Your task to perform on an android device: turn on sleep mode Image 0: 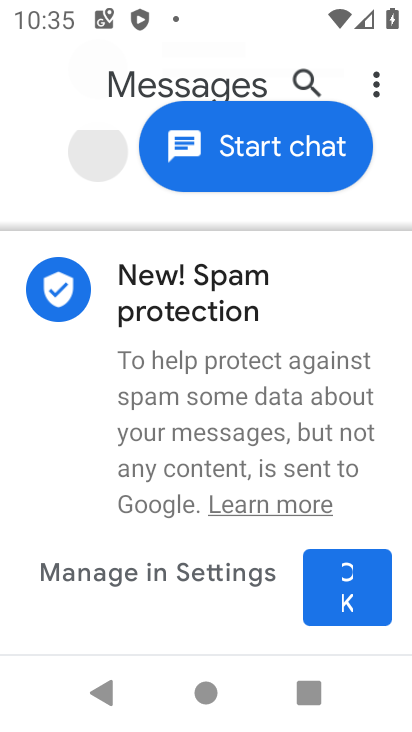
Step 0: press home button
Your task to perform on an android device: turn on sleep mode Image 1: 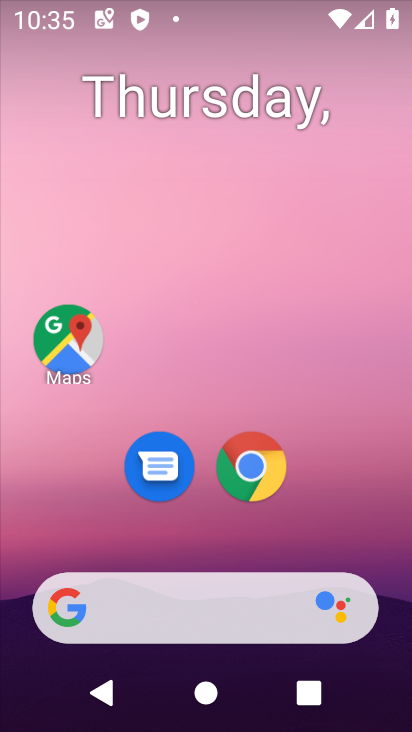
Step 1: drag from (227, 533) to (220, 189)
Your task to perform on an android device: turn on sleep mode Image 2: 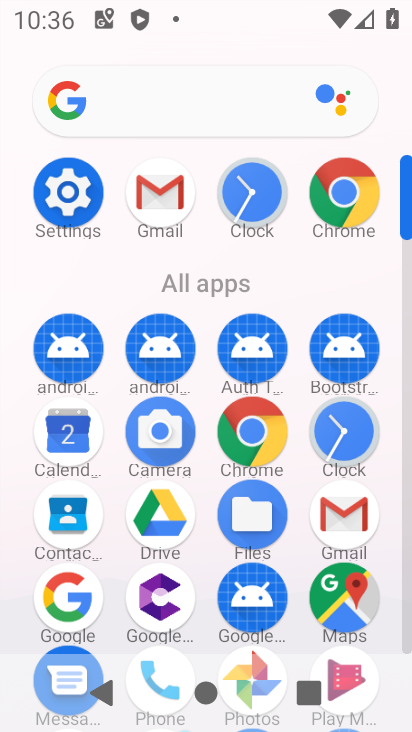
Step 2: click (83, 199)
Your task to perform on an android device: turn on sleep mode Image 3: 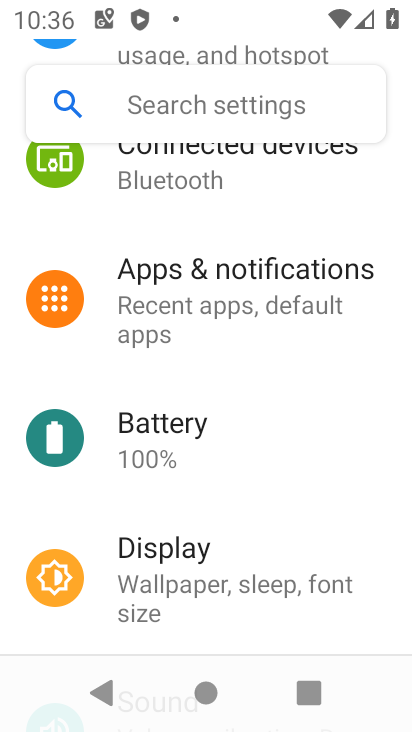
Step 3: drag from (206, 265) to (212, 176)
Your task to perform on an android device: turn on sleep mode Image 4: 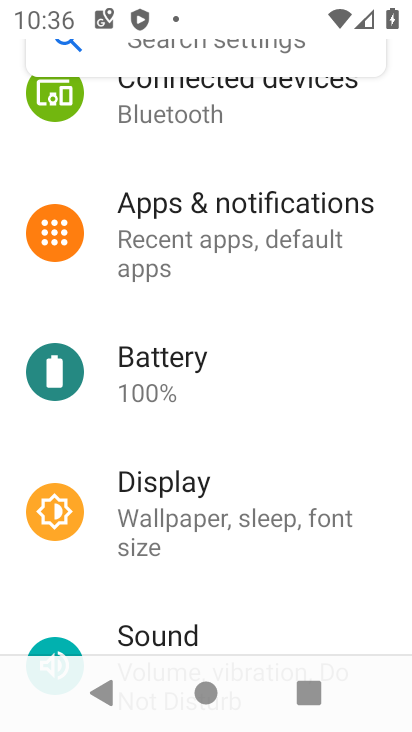
Step 4: click (219, 503)
Your task to perform on an android device: turn on sleep mode Image 5: 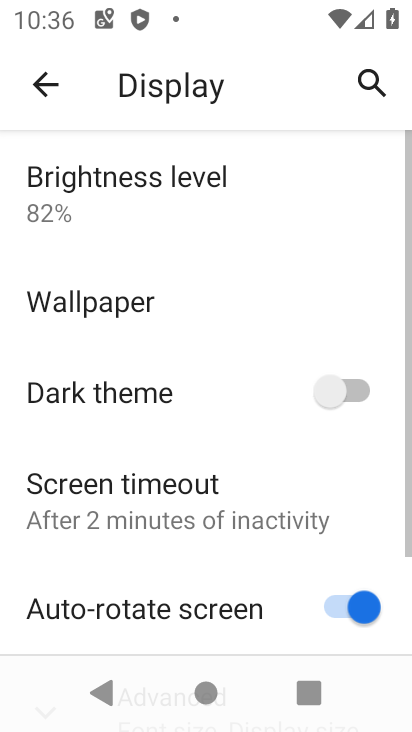
Step 5: drag from (235, 580) to (239, 287)
Your task to perform on an android device: turn on sleep mode Image 6: 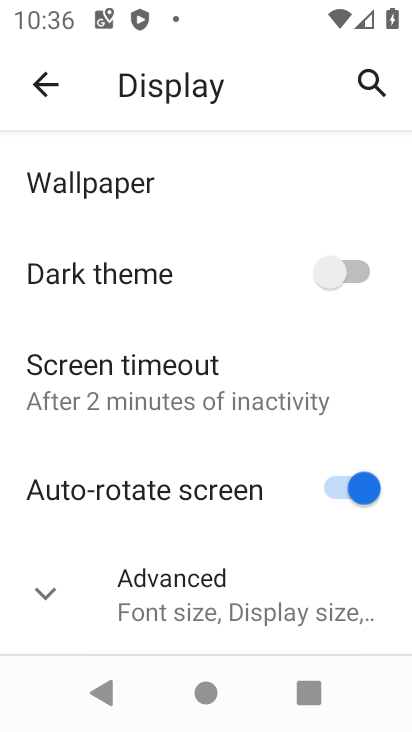
Step 6: click (186, 412)
Your task to perform on an android device: turn on sleep mode Image 7: 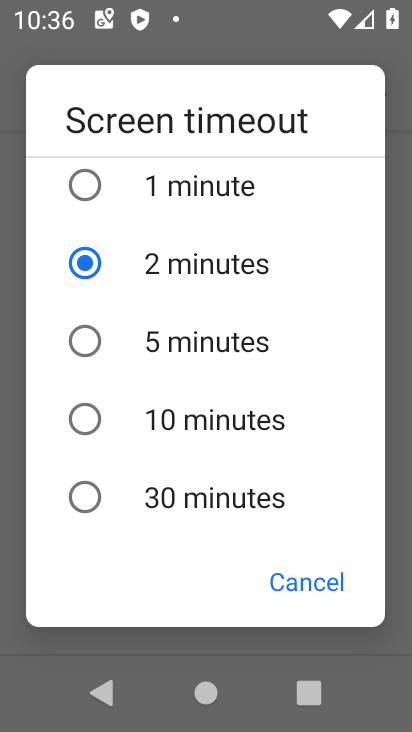
Step 7: click (174, 426)
Your task to perform on an android device: turn on sleep mode Image 8: 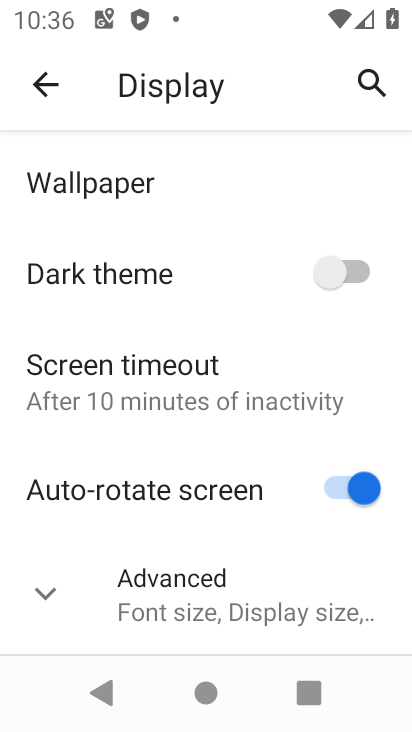
Step 8: task complete